Your task to perform on an android device: toggle javascript in the chrome app Image 0: 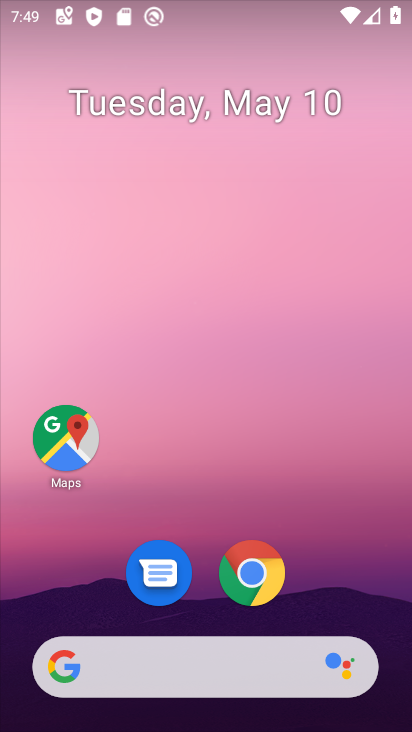
Step 0: press home button
Your task to perform on an android device: toggle javascript in the chrome app Image 1: 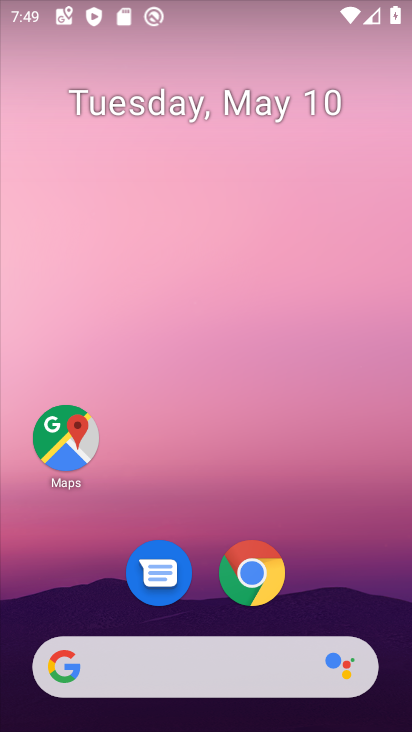
Step 1: drag from (394, 566) to (352, 165)
Your task to perform on an android device: toggle javascript in the chrome app Image 2: 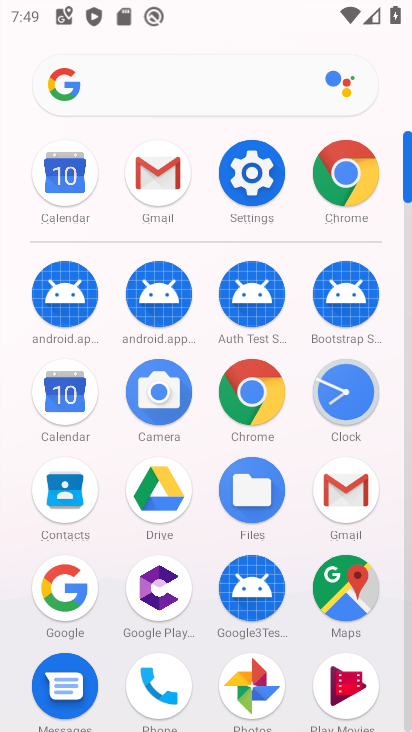
Step 2: click (263, 404)
Your task to perform on an android device: toggle javascript in the chrome app Image 3: 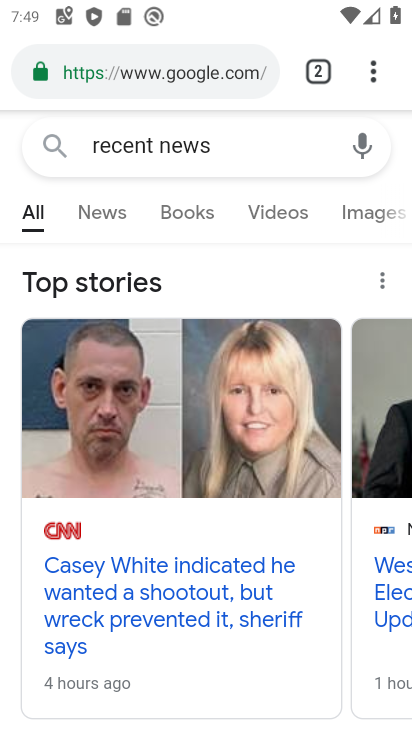
Step 3: drag from (375, 86) to (183, 565)
Your task to perform on an android device: toggle javascript in the chrome app Image 4: 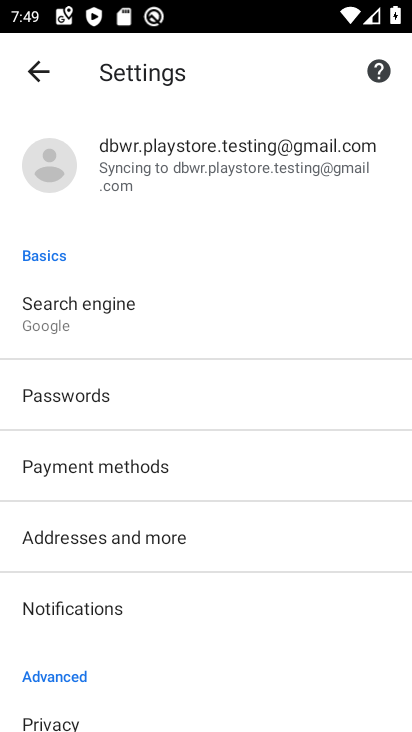
Step 4: drag from (209, 565) to (229, 282)
Your task to perform on an android device: toggle javascript in the chrome app Image 5: 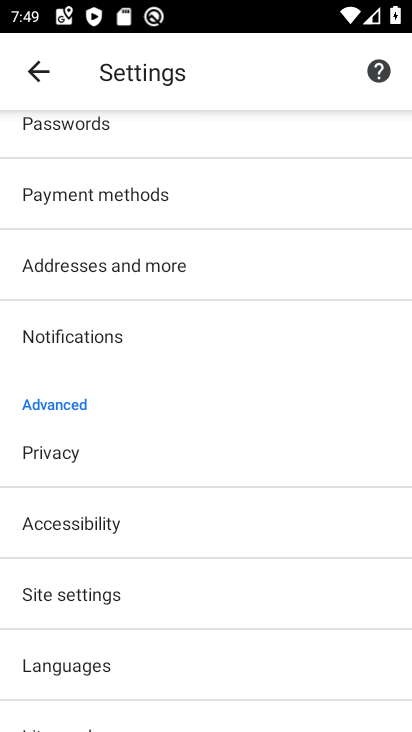
Step 5: drag from (245, 585) to (227, 272)
Your task to perform on an android device: toggle javascript in the chrome app Image 6: 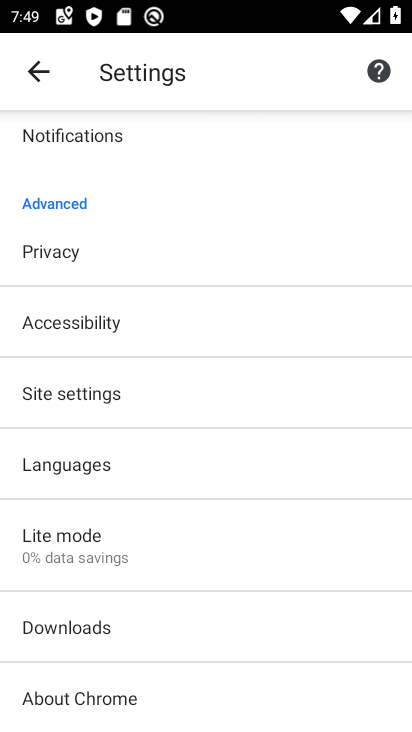
Step 6: click (148, 394)
Your task to perform on an android device: toggle javascript in the chrome app Image 7: 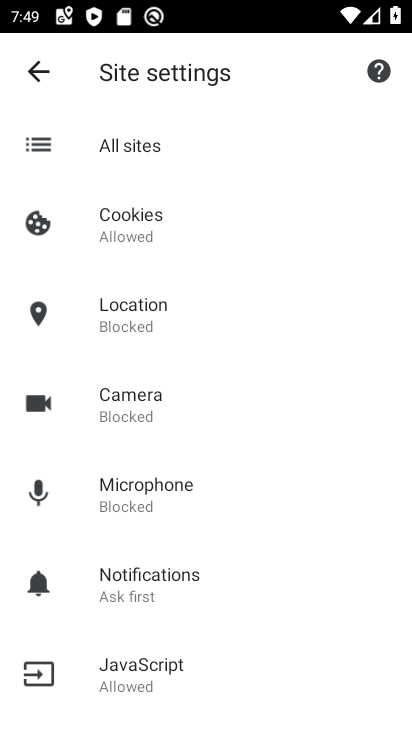
Step 7: click (198, 664)
Your task to perform on an android device: toggle javascript in the chrome app Image 8: 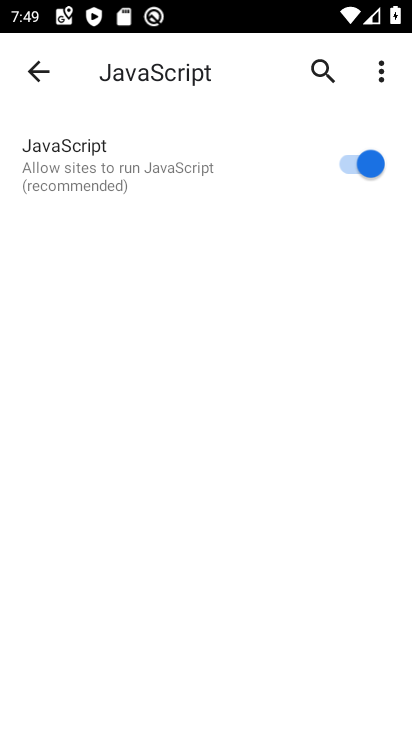
Step 8: click (355, 163)
Your task to perform on an android device: toggle javascript in the chrome app Image 9: 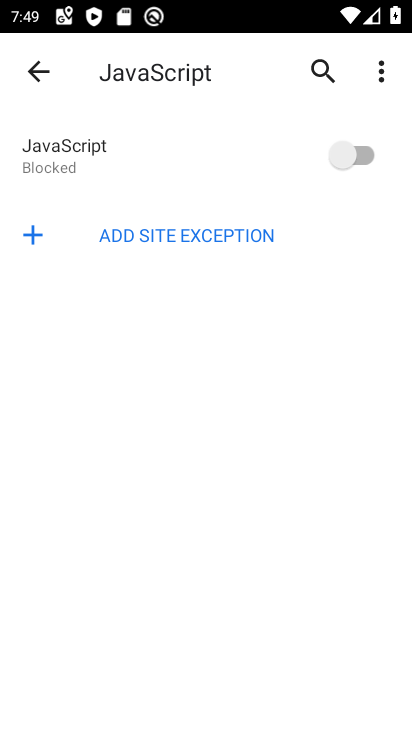
Step 9: task complete